Your task to perform on an android device: Open ESPN.com Image 0: 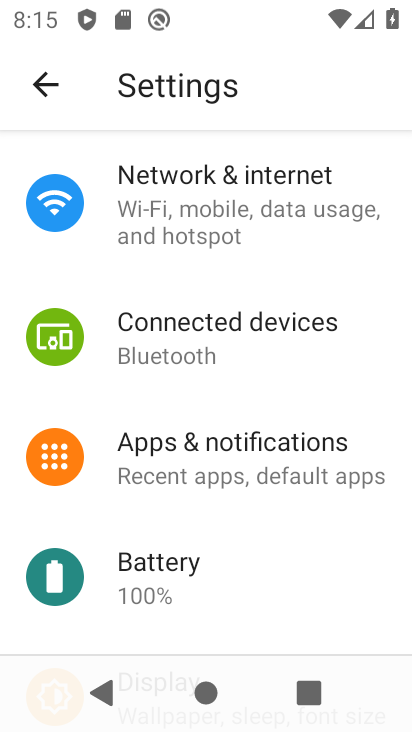
Step 0: press home button
Your task to perform on an android device: Open ESPN.com Image 1: 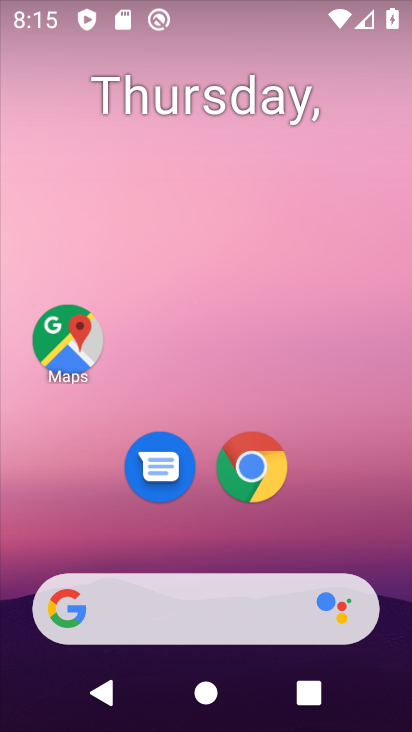
Step 1: click (245, 463)
Your task to perform on an android device: Open ESPN.com Image 2: 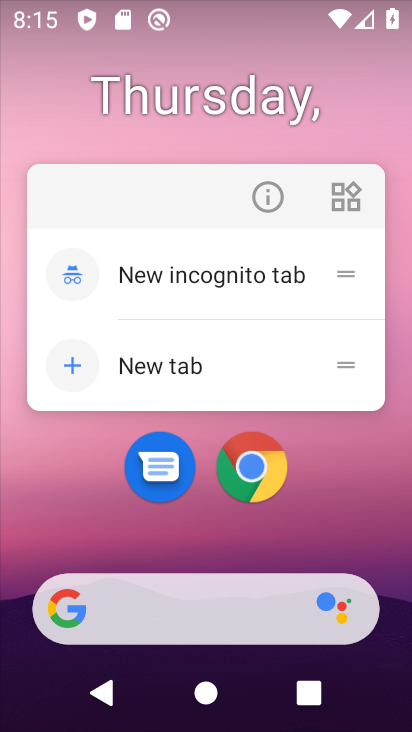
Step 2: click (267, 472)
Your task to perform on an android device: Open ESPN.com Image 3: 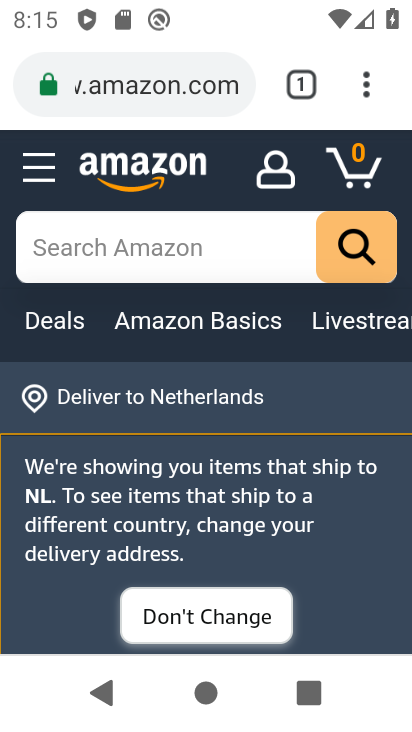
Step 3: click (298, 85)
Your task to perform on an android device: Open ESPN.com Image 4: 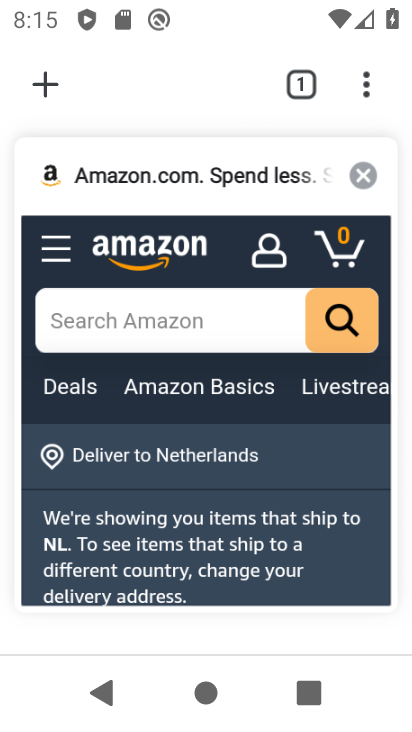
Step 4: click (43, 82)
Your task to perform on an android device: Open ESPN.com Image 5: 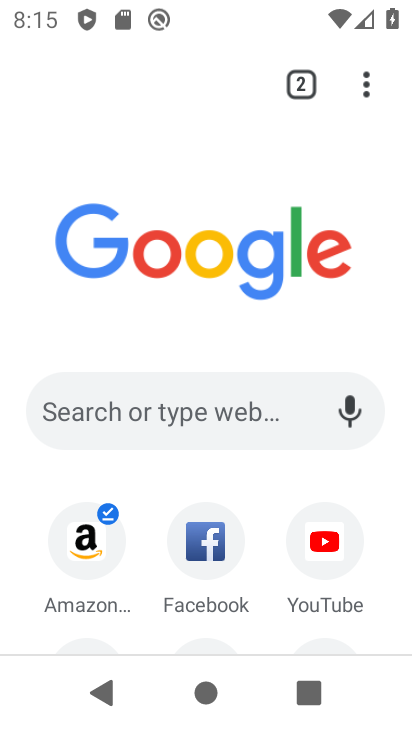
Step 5: drag from (218, 587) to (316, 186)
Your task to perform on an android device: Open ESPN.com Image 6: 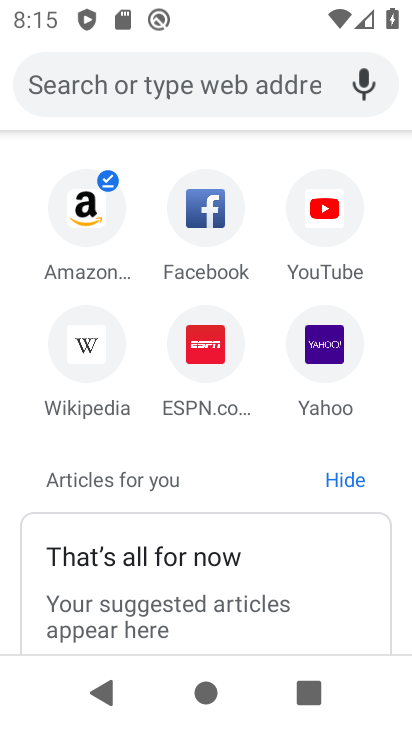
Step 6: click (206, 350)
Your task to perform on an android device: Open ESPN.com Image 7: 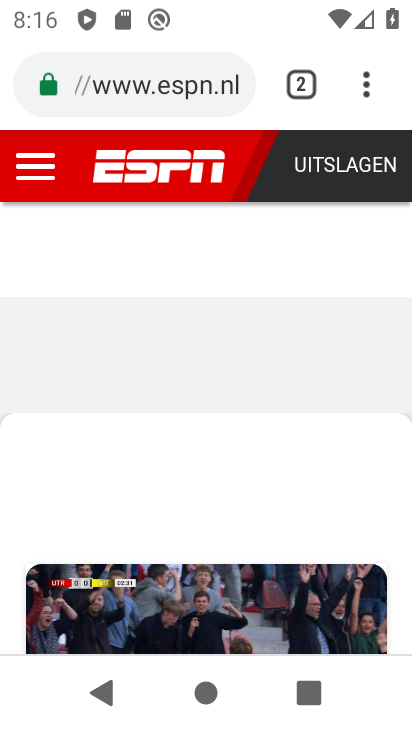
Step 7: task complete